Your task to perform on an android device: Open location settings Image 0: 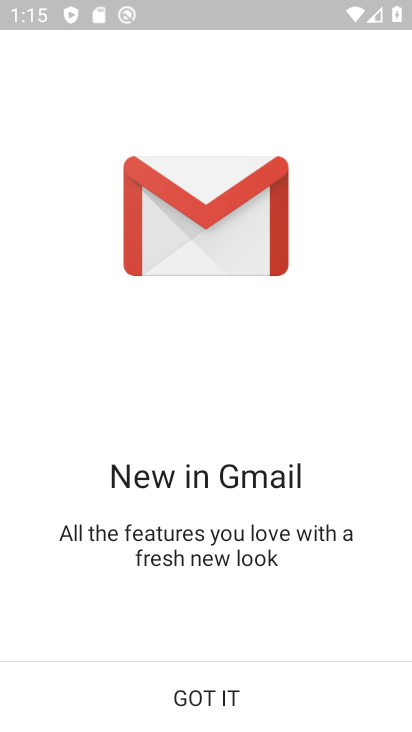
Step 0: press home button
Your task to perform on an android device: Open location settings Image 1: 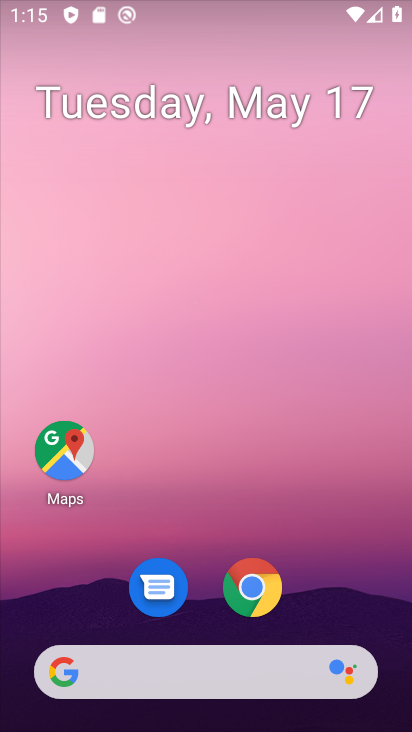
Step 1: drag from (393, 575) to (377, 156)
Your task to perform on an android device: Open location settings Image 2: 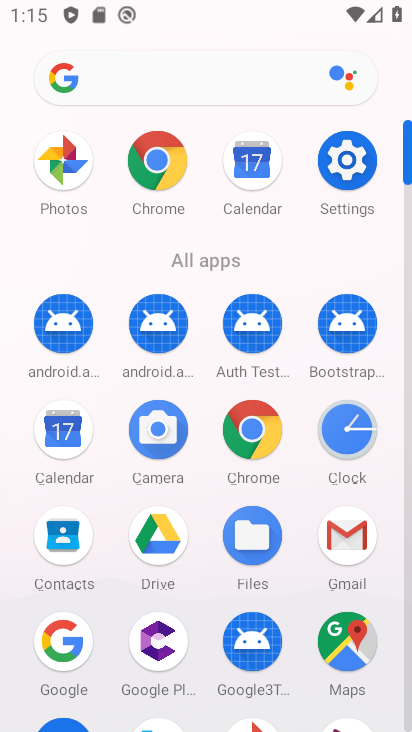
Step 2: click (344, 173)
Your task to perform on an android device: Open location settings Image 3: 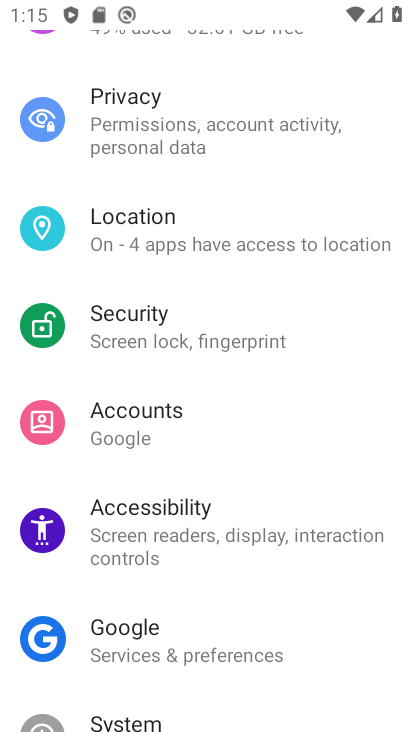
Step 3: click (170, 234)
Your task to perform on an android device: Open location settings Image 4: 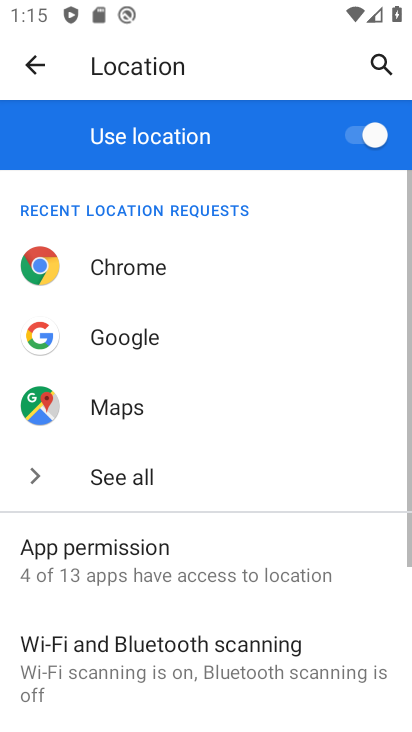
Step 4: drag from (211, 547) to (283, 271)
Your task to perform on an android device: Open location settings Image 5: 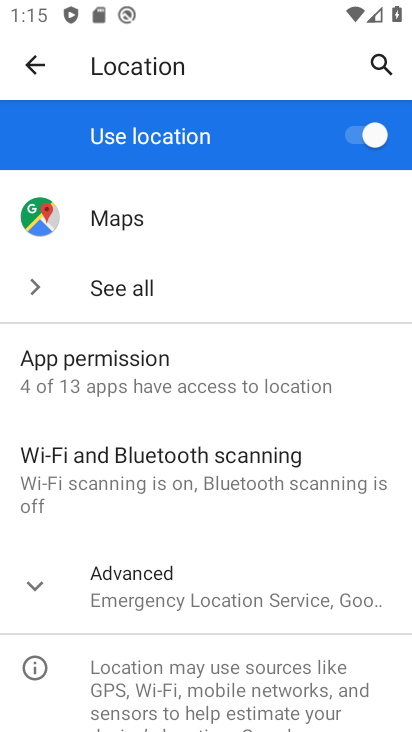
Step 5: click (275, 583)
Your task to perform on an android device: Open location settings Image 6: 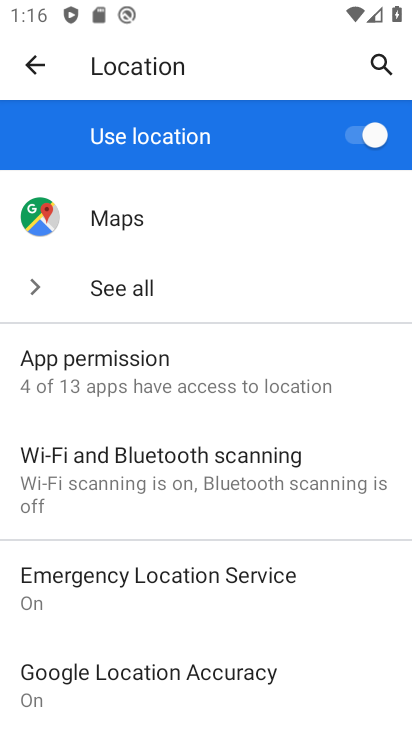
Step 6: task complete